Your task to perform on an android device: Search for Mexican restaurants on Maps Image 0: 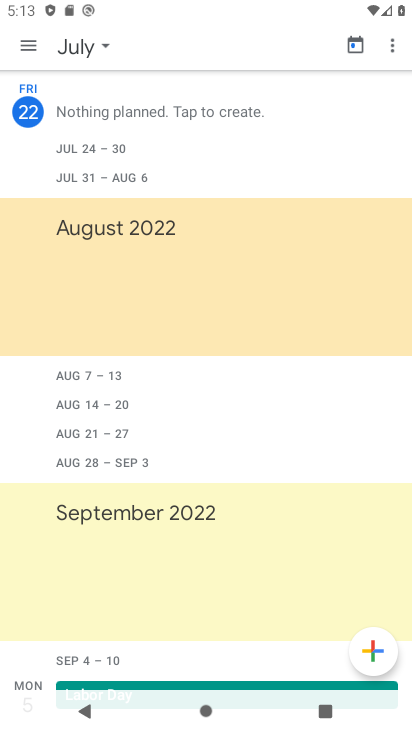
Step 0: press home button
Your task to perform on an android device: Search for Mexican restaurants on Maps Image 1: 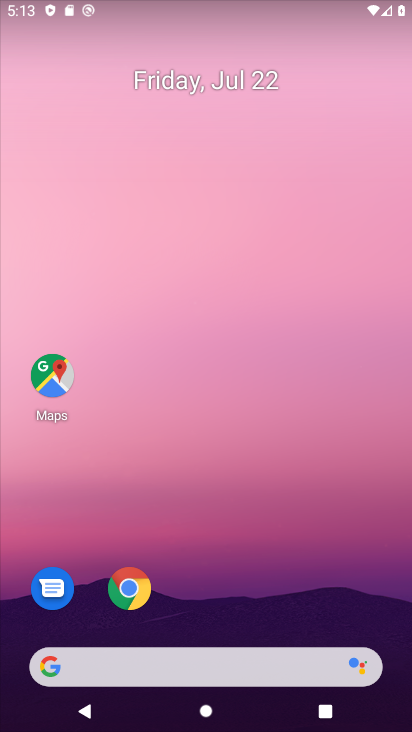
Step 1: click (227, 663)
Your task to perform on an android device: Search for Mexican restaurants on Maps Image 2: 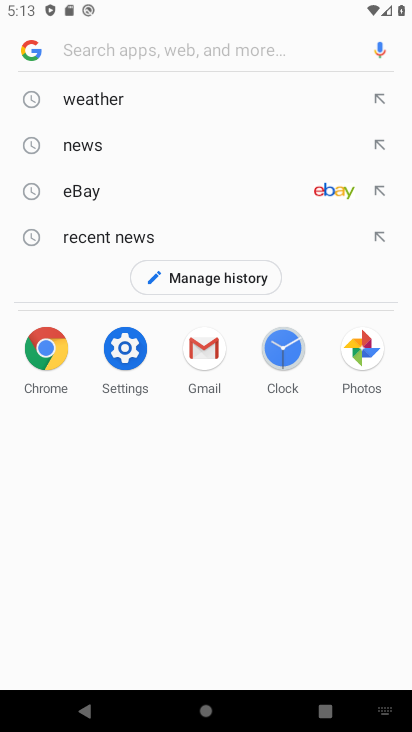
Step 2: type "Mexican restaurants "
Your task to perform on an android device: Search for Mexican restaurants on Maps Image 3: 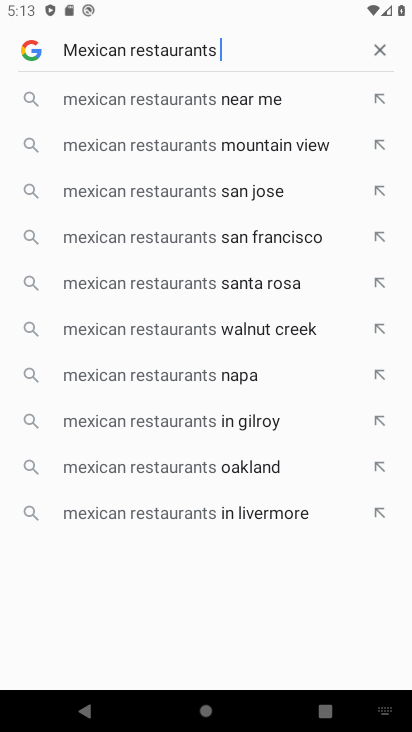
Step 3: press enter
Your task to perform on an android device: Search for Mexican restaurants on Maps Image 4: 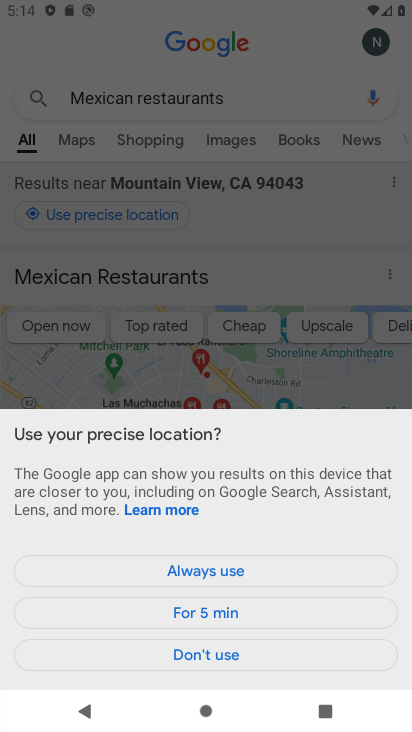
Step 4: click (203, 573)
Your task to perform on an android device: Search for Mexican restaurants on Maps Image 5: 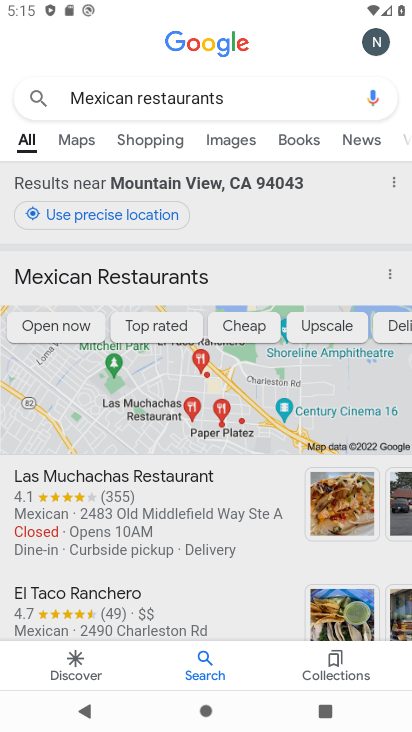
Step 5: task complete